Your task to perform on an android device: turn smart compose on in the gmail app Image 0: 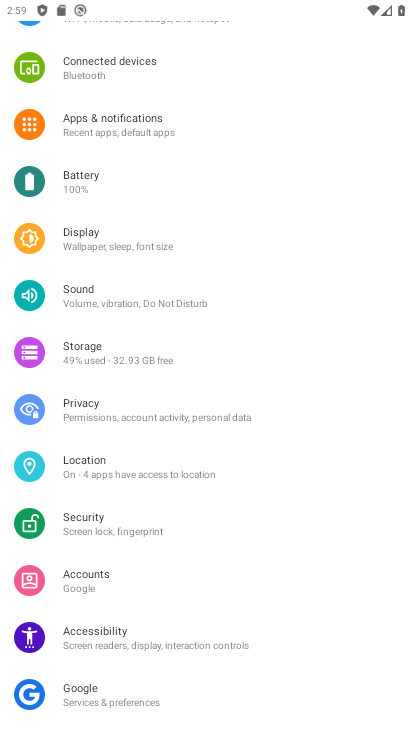
Step 0: press home button
Your task to perform on an android device: turn smart compose on in the gmail app Image 1: 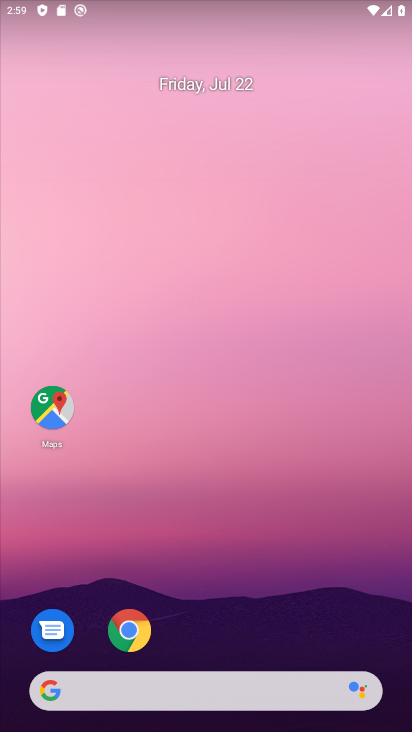
Step 1: drag from (369, 541) to (360, 146)
Your task to perform on an android device: turn smart compose on in the gmail app Image 2: 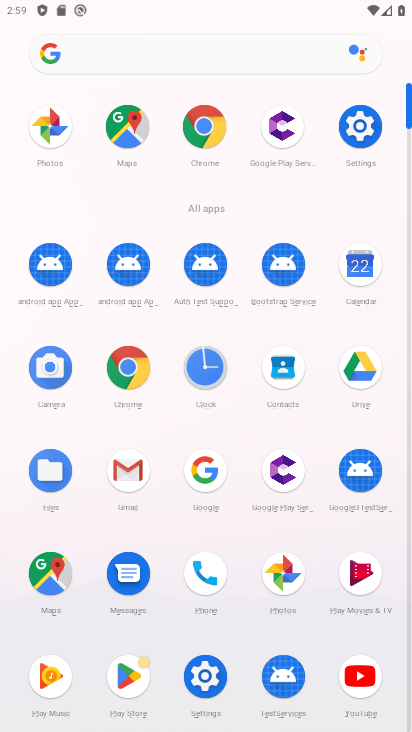
Step 2: click (134, 472)
Your task to perform on an android device: turn smart compose on in the gmail app Image 3: 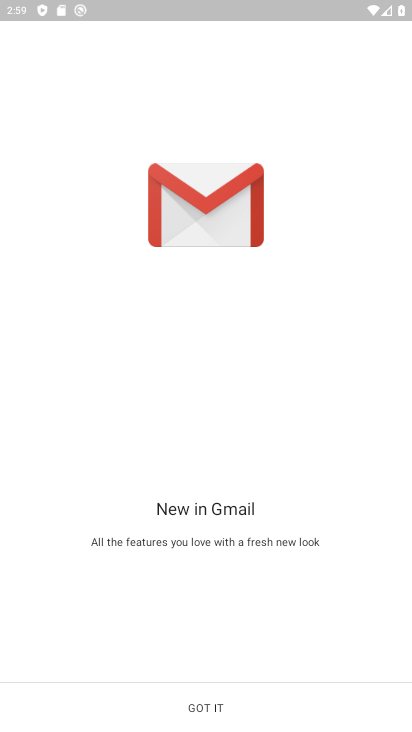
Step 3: click (219, 710)
Your task to perform on an android device: turn smart compose on in the gmail app Image 4: 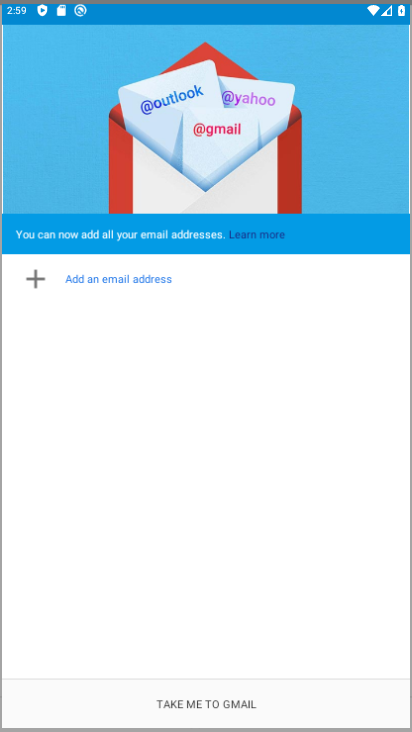
Step 4: click (219, 710)
Your task to perform on an android device: turn smart compose on in the gmail app Image 5: 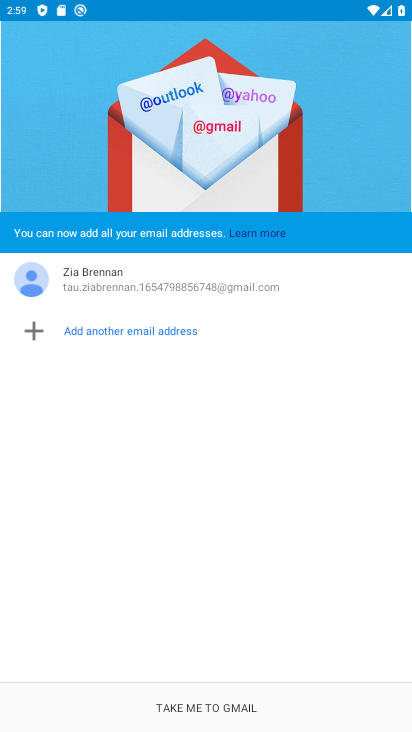
Step 5: click (219, 710)
Your task to perform on an android device: turn smart compose on in the gmail app Image 6: 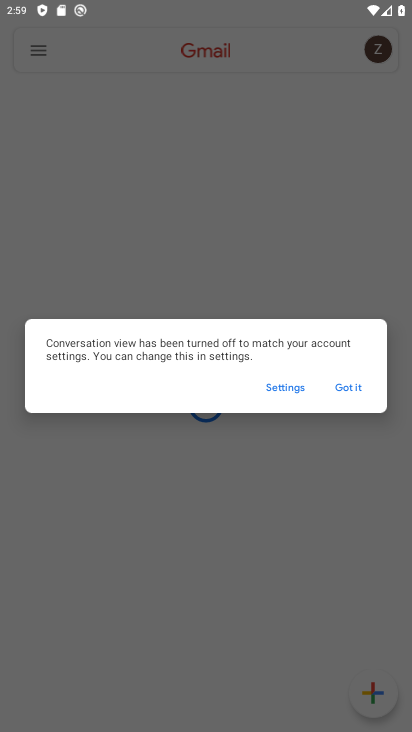
Step 6: click (353, 382)
Your task to perform on an android device: turn smart compose on in the gmail app Image 7: 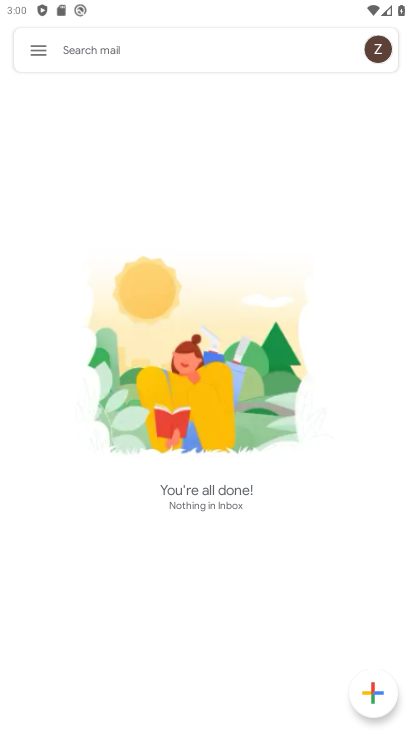
Step 7: click (35, 54)
Your task to perform on an android device: turn smart compose on in the gmail app Image 8: 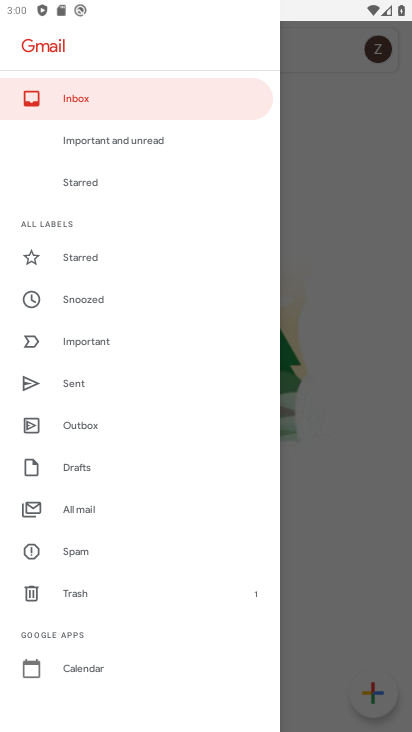
Step 8: drag from (170, 579) to (171, 319)
Your task to perform on an android device: turn smart compose on in the gmail app Image 9: 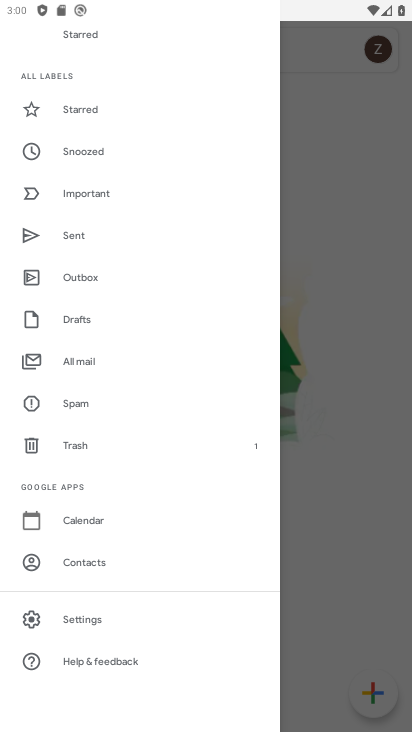
Step 9: click (70, 615)
Your task to perform on an android device: turn smart compose on in the gmail app Image 10: 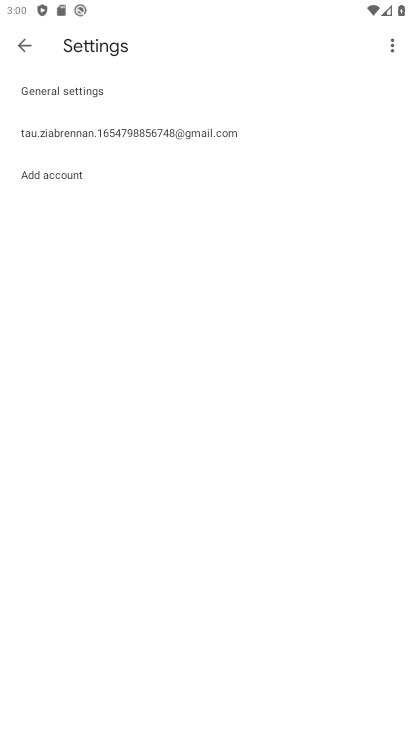
Step 10: click (77, 127)
Your task to perform on an android device: turn smart compose on in the gmail app Image 11: 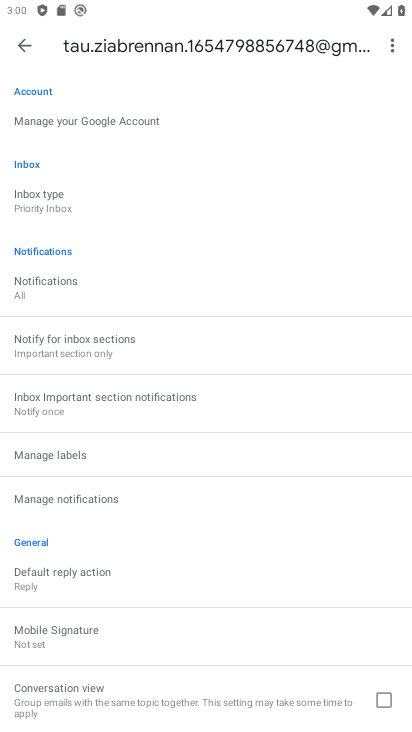
Step 11: task complete